Your task to perform on an android device: turn on wifi Image 0: 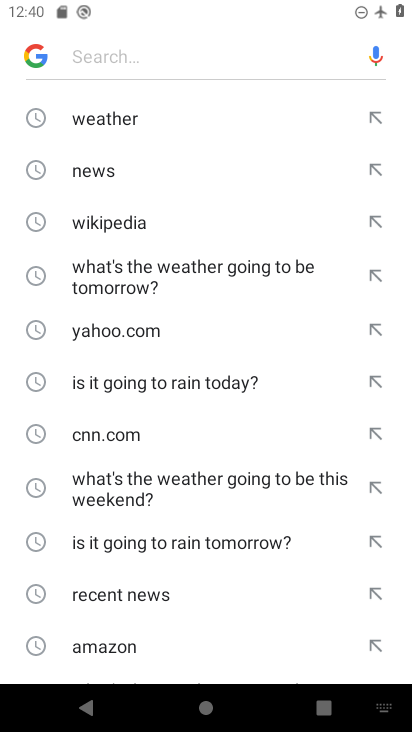
Step 0: press home button
Your task to perform on an android device: turn on wifi Image 1: 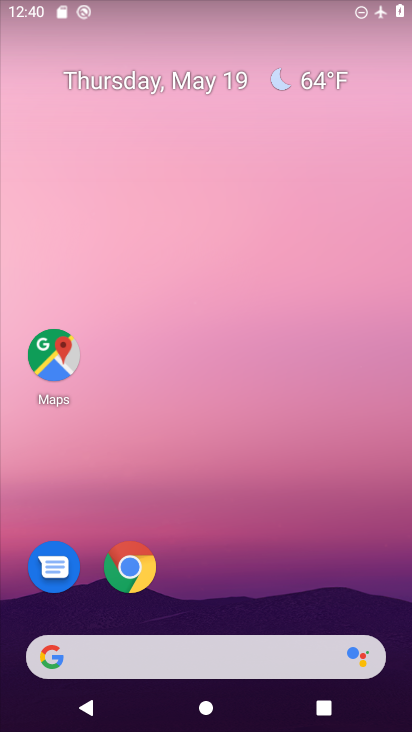
Step 1: drag from (256, 531) to (260, 137)
Your task to perform on an android device: turn on wifi Image 2: 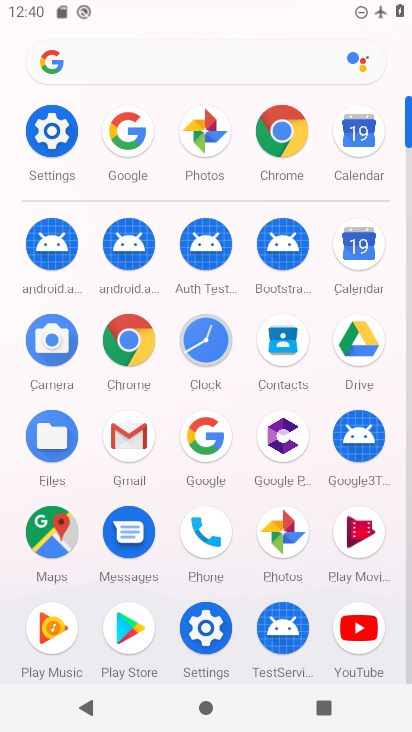
Step 2: click (49, 134)
Your task to perform on an android device: turn on wifi Image 3: 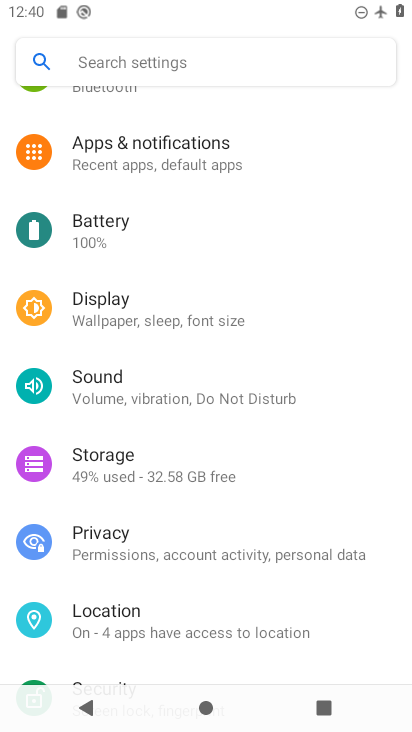
Step 3: drag from (213, 187) to (244, 505)
Your task to perform on an android device: turn on wifi Image 4: 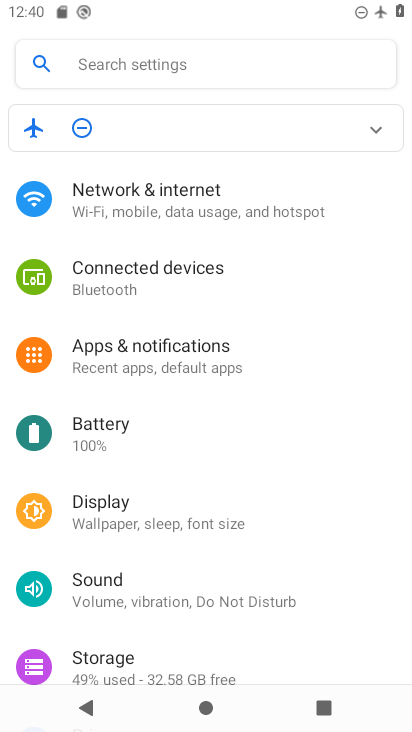
Step 4: click (152, 218)
Your task to perform on an android device: turn on wifi Image 5: 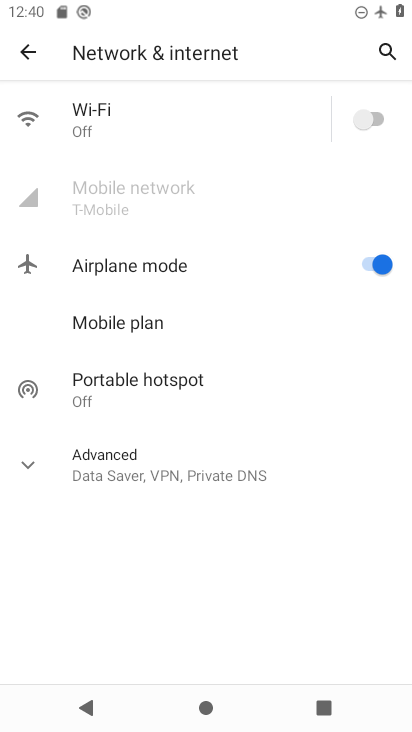
Step 5: click (372, 116)
Your task to perform on an android device: turn on wifi Image 6: 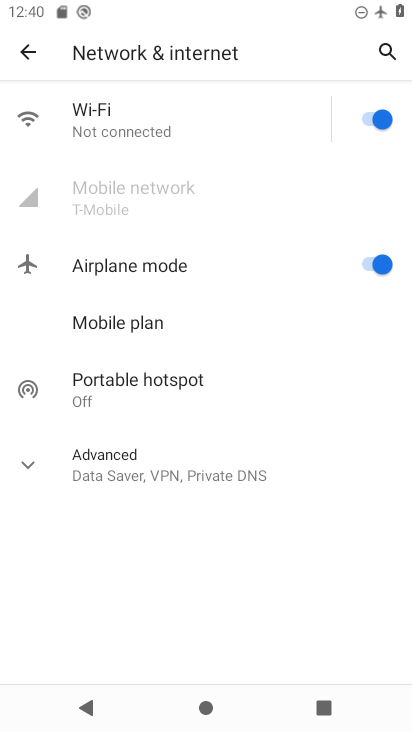
Step 6: task complete